Your task to perform on an android device: change the upload size in google photos Image 0: 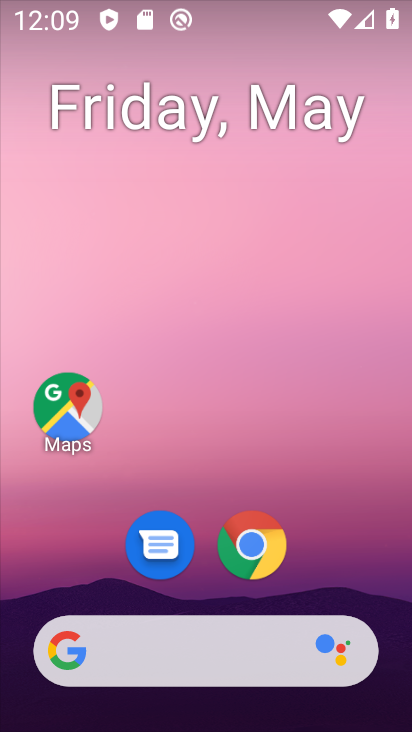
Step 0: drag from (284, 494) to (265, 164)
Your task to perform on an android device: change the upload size in google photos Image 1: 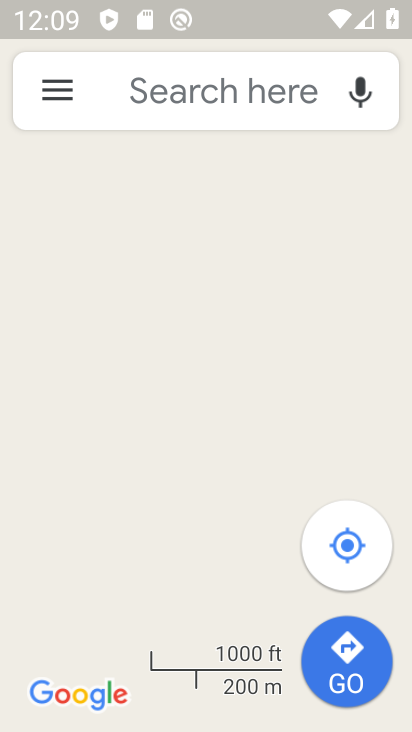
Step 1: press home button
Your task to perform on an android device: change the upload size in google photos Image 2: 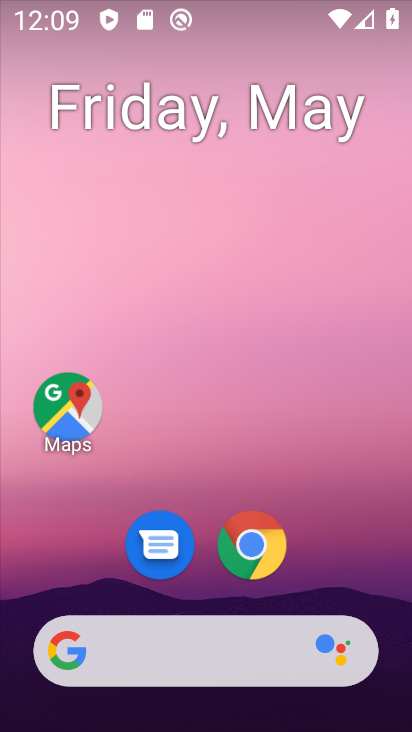
Step 2: drag from (301, 586) to (238, 5)
Your task to perform on an android device: change the upload size in google photos Image 3: 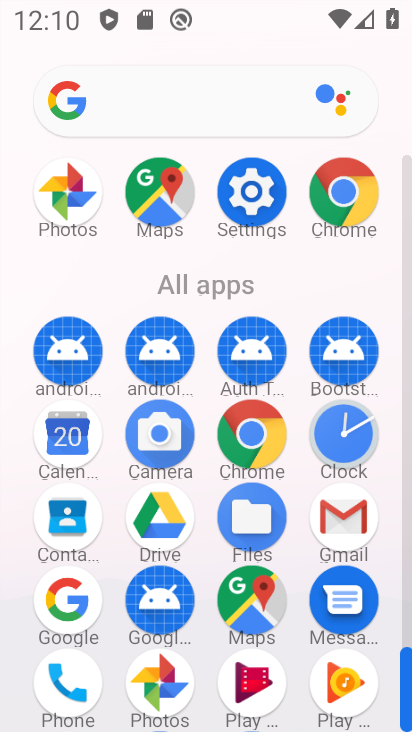
Step 3: click (155, 666)
Your task to perform on an android device: change the upload size in google photos Image 4: 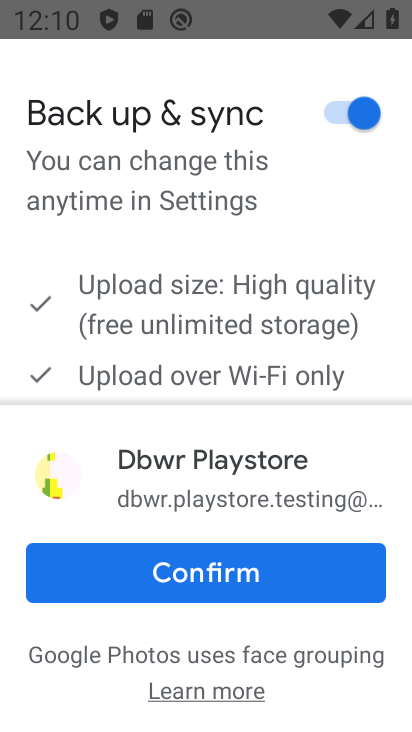
Step 4: click (213, 590)
Your task to perform on an android device: change the upload size in google photos Image 5: 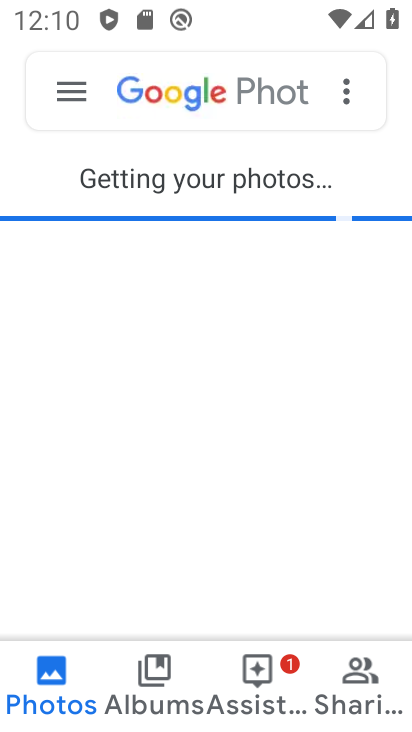
Step 5: click (74, 99)
Your task to perform on an android device: change the upload size in google photos Image 6: 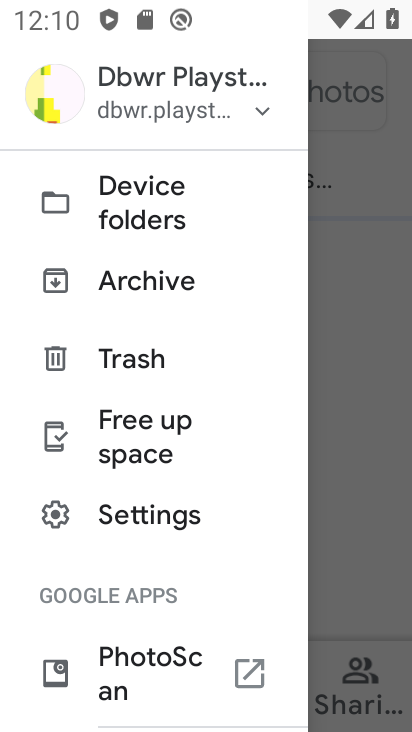
Step 6: click (146, 522)
Your task to perform on an android device: change the upload size in google photos Image 7: 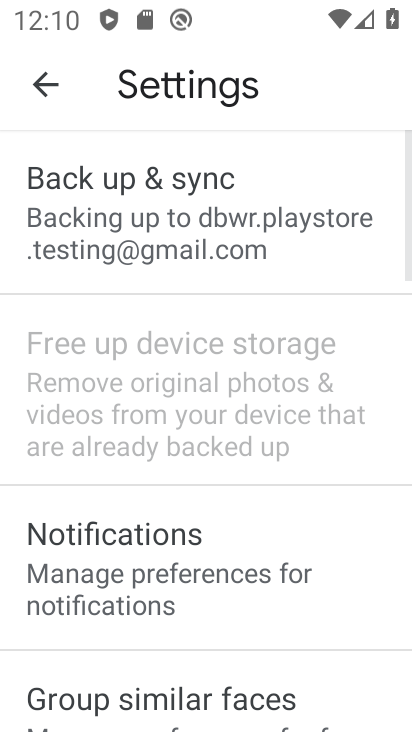
Step 7: click (158, 215)
Your task to perform on an android device: change the upload size in google photos Image 8: 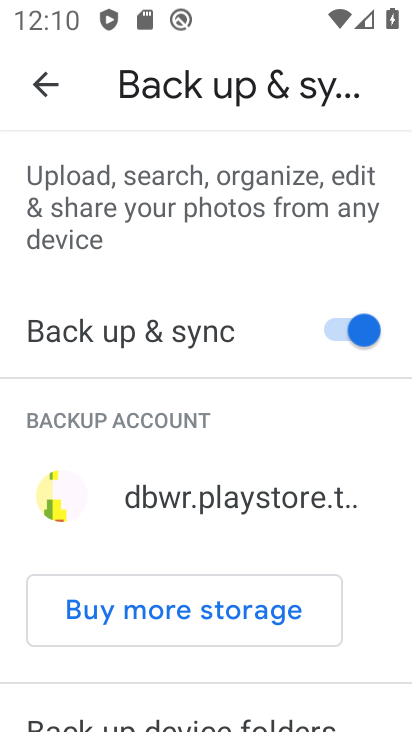
Step 8: drag from (206, 542) to (231, 321)
Your task to perform on an android device: change the upload size in google photos Image 9: 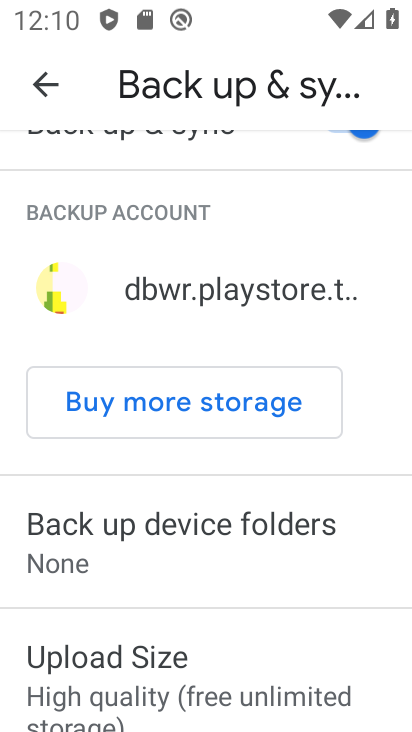
Step 9: drag from (197, 657) to (218, 432)
Your task to perform on an android device: change the upload size in google photos Image 10: 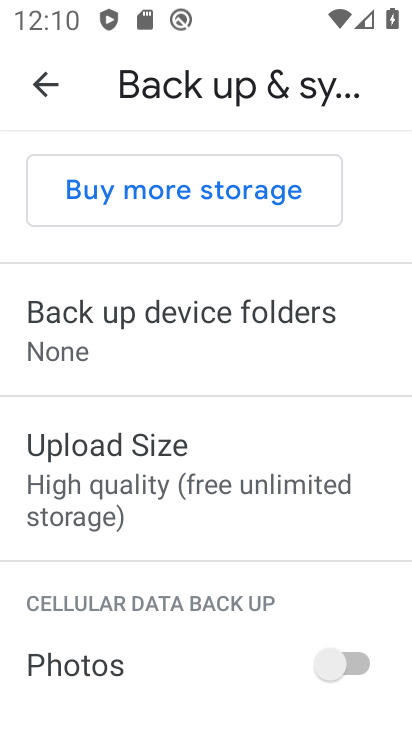
Step 10: click (145, 498)
Your task to perform on an android device: change the upload size in google photos Image 11: 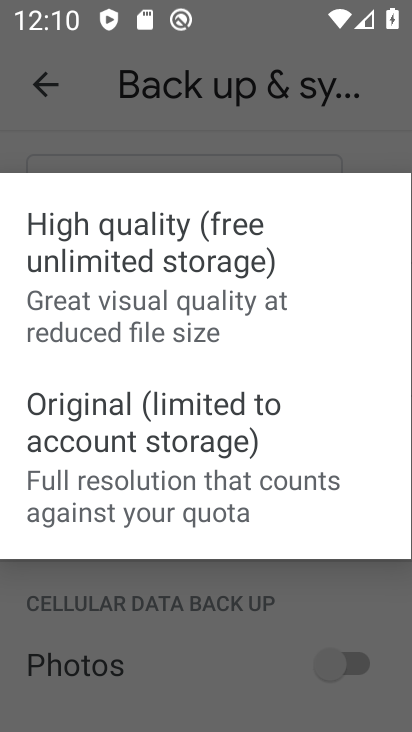
Step 11: press back button
Your task to perform on an android device: change the upload size in google photos Image 12: 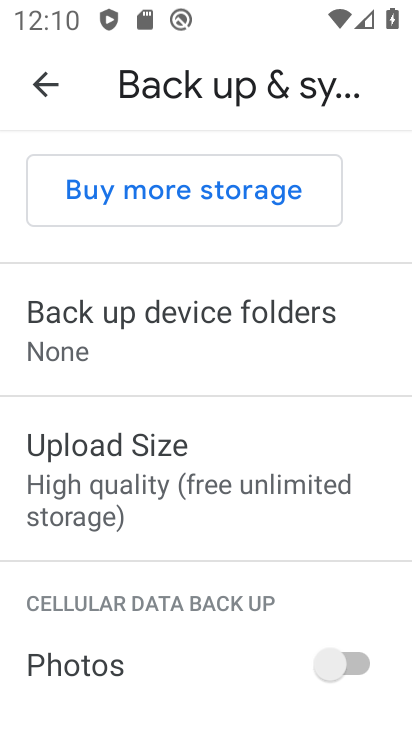
Step 12: click (157, 494)
Your task to perform on an android device: change the upload size in google photos Image 13: 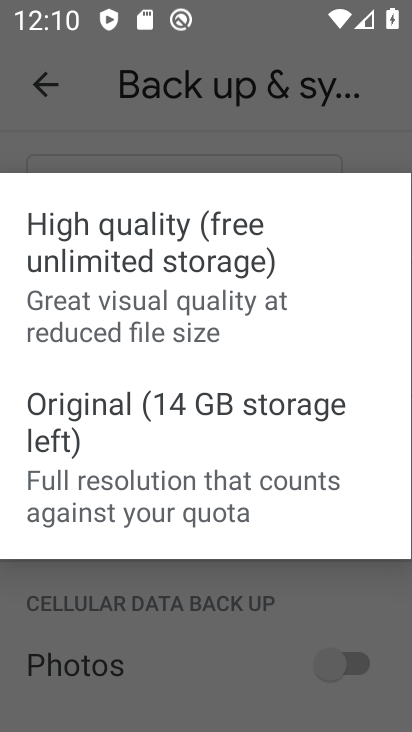
Step 13: click (155, 489)
Your task to perform on an android device: change the upload size in google photos Image 14: 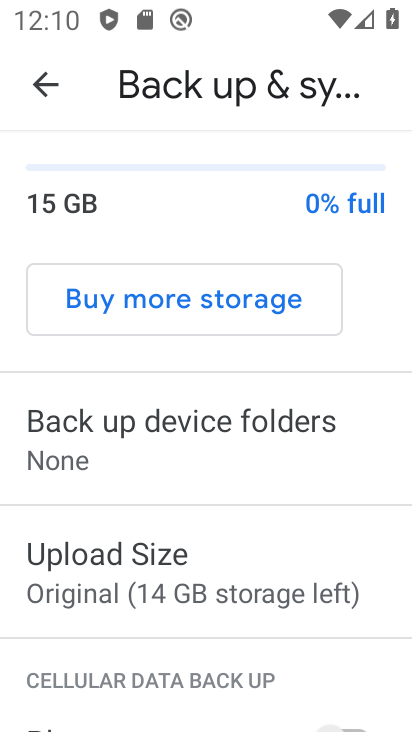
Step 14: task complete